Your task to perform on an android device: toggle data saver in the chrome app Image 0: 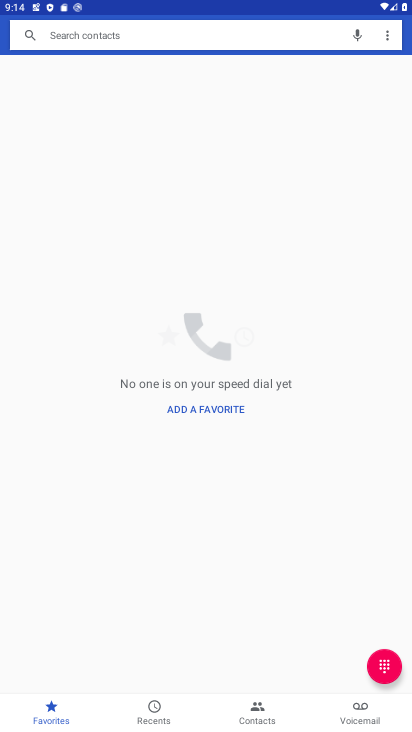
Step 0: press home button
Your task to perform on an android device: toggle data saver in the chrome app Image 1: 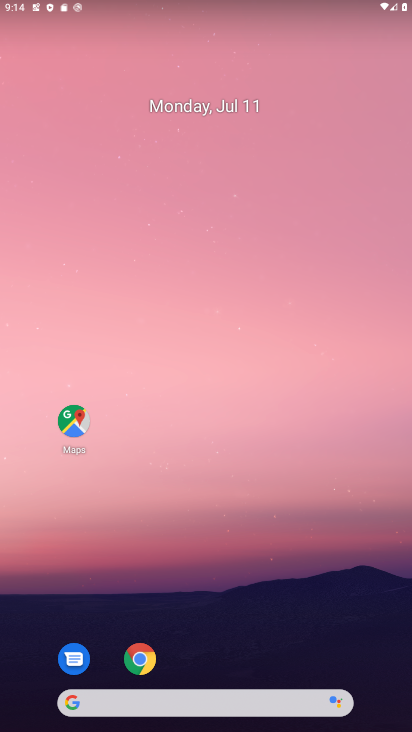
Step 1: click (131, 657)
Your task to perform on an android device: toggle data saver in the chrome app Image 2: 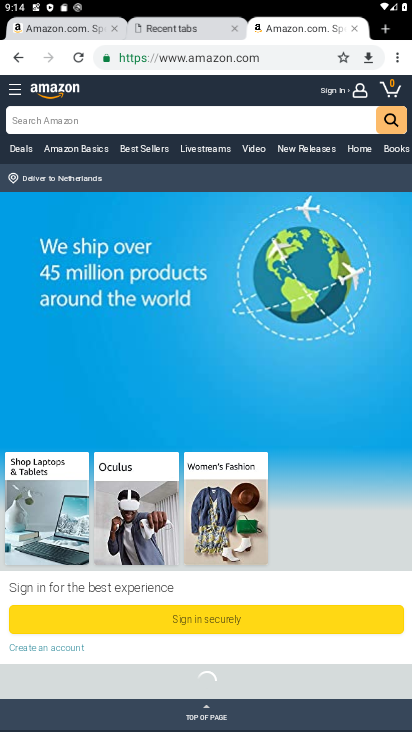
Step 2: click (400, 60)
Your task to perform on an android device: toggle data saver in the chrome app Image 3: 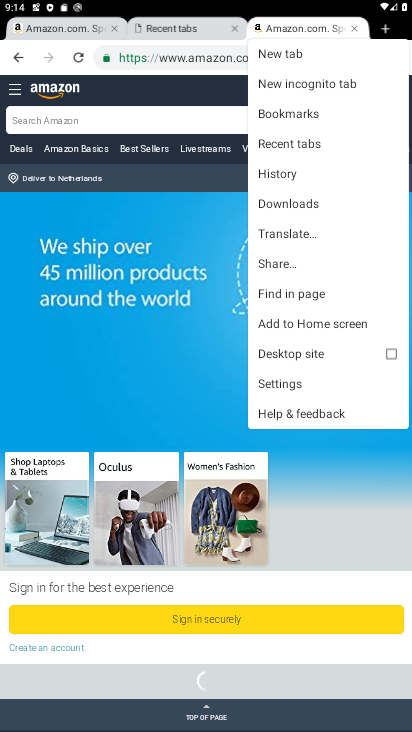
Step 3: click (279, 381)
Your task to perform on an android device: toggle data saver in the chrome app Image 4: 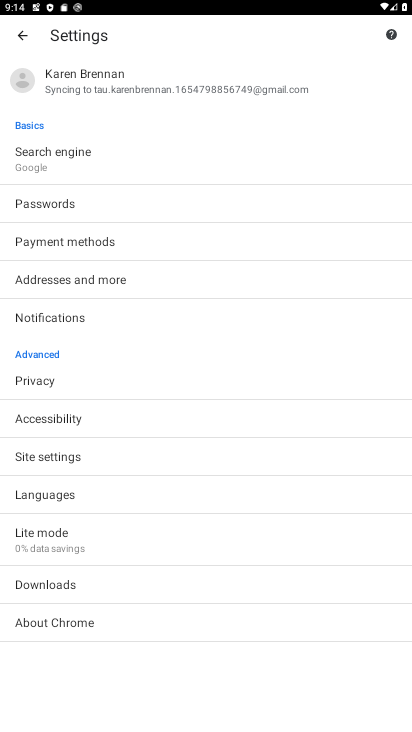
Step 4: click (56, 534)
Your task to perform on an android device: toggle data saver in the chrome app Image 5: 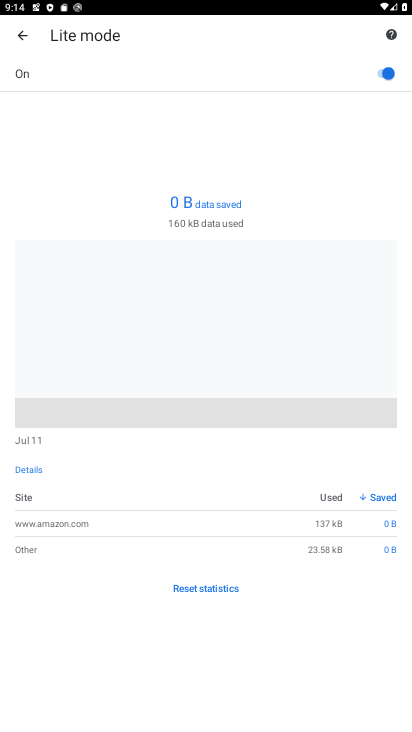
Step 5: click (383, 73)
Your task to perform on an android device: toggle data saver in the chrome app Image 6: 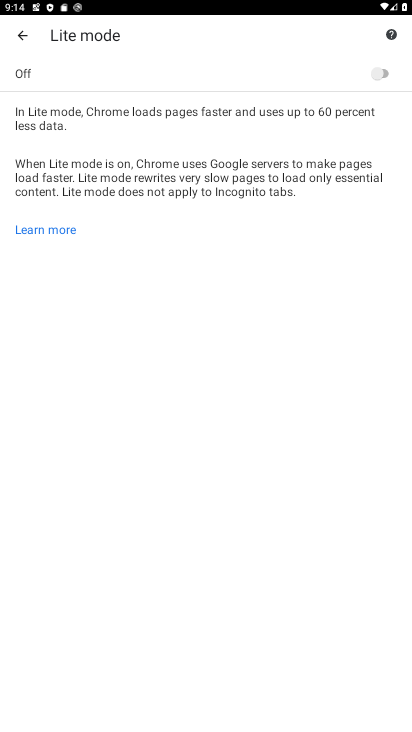
Step 6: task complete